Your task to perform on an android device: Open location settings Image 0: 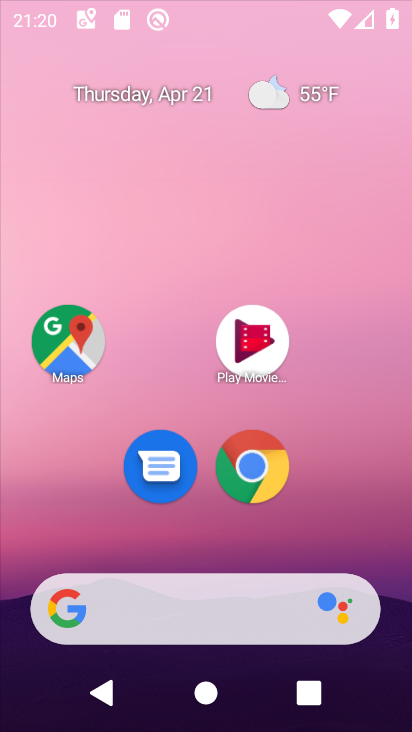
Step 0: drag from (321, 414) to (310, 42)
Your task to perform on an android device: Open location settings Image 1: 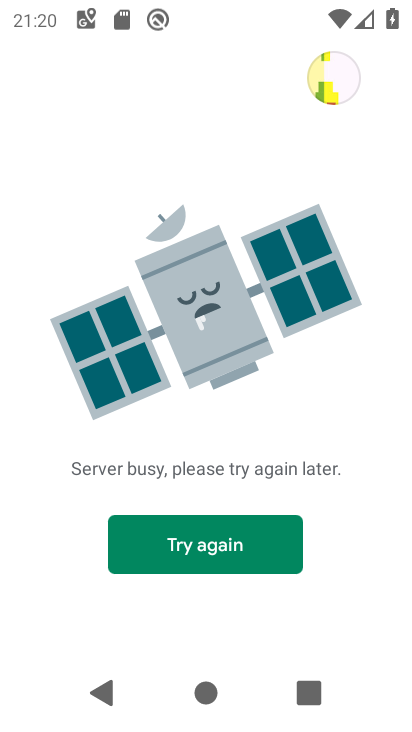
Step 1: press home button
Your task to perform on an android device: Open location settings Image 2: 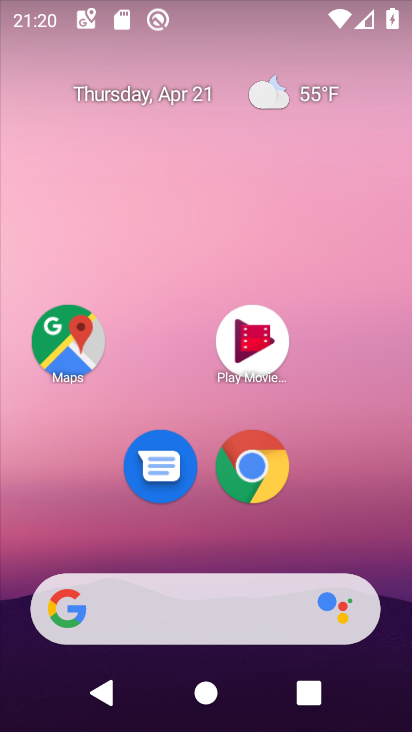
Step 2: drag from (303, 547) to (308, 93)
Your task to perform on an android device: Open location settings Image 3: 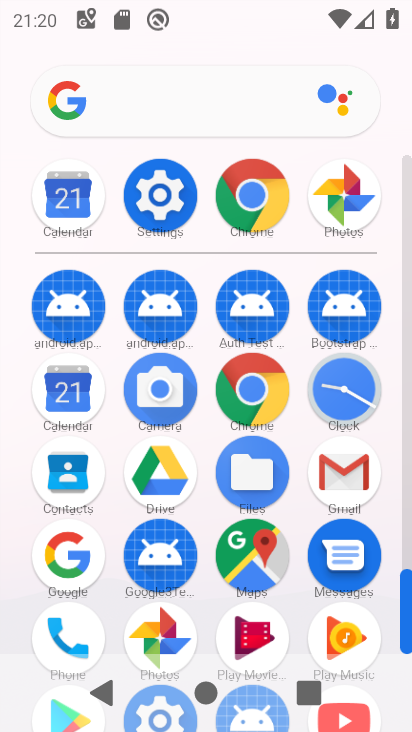
Step 3: click (162, 202)
Your task to perform on an android device: Open location settings Image 4: 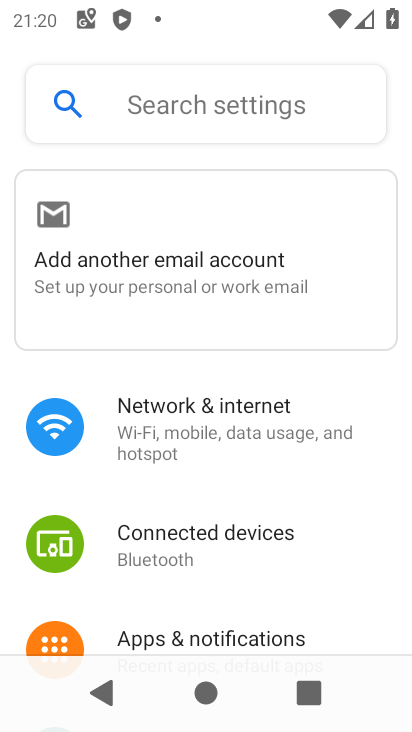
Step 4: drag from (253, 582) to (257, 210)
Your task to perform on an android device: Open location settings Image 5: 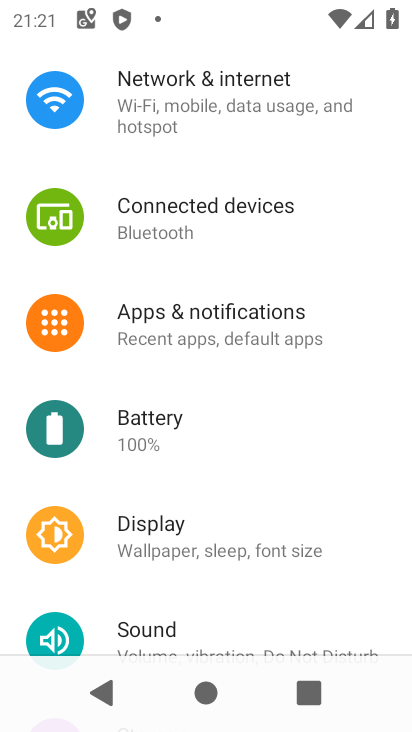
Step 5: drag from (283, 496) to (272, 187)
Your task to perform on an android device: Open location settings Image 6: 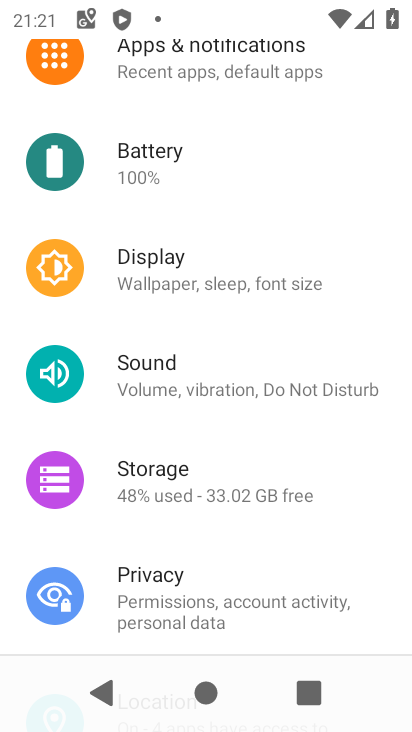
Step 6: drag from (256, 577) to (292, 221)
Your task to perform on an android device: Open location settings Image 7: 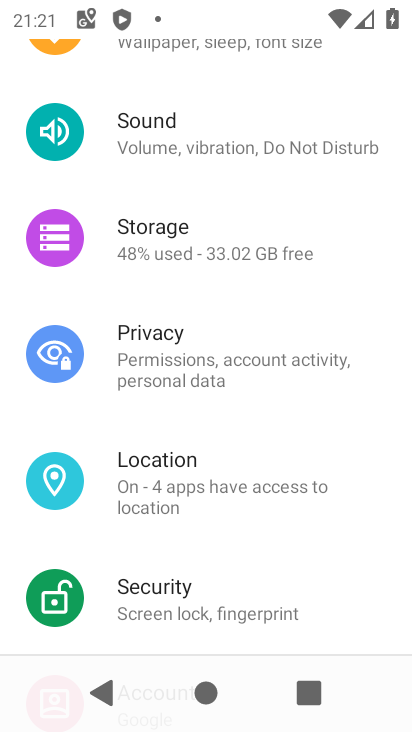
Step 7: click (199, 482)
Your task to perform on an android device: Open location settings Image 8: 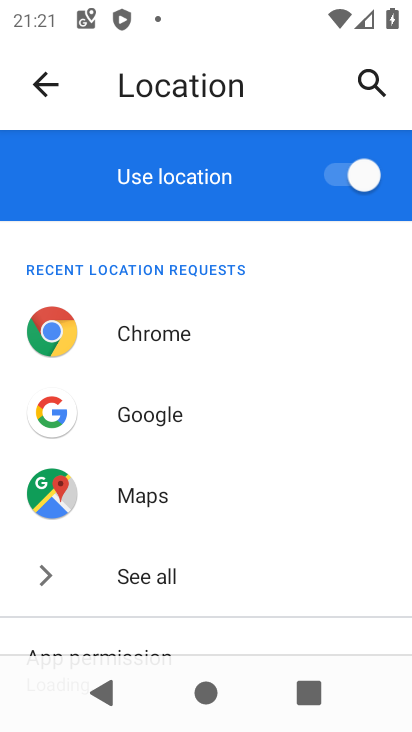
Step 8: task complete